Your task to perform on an android device: Toggle the flashlight Image 0: 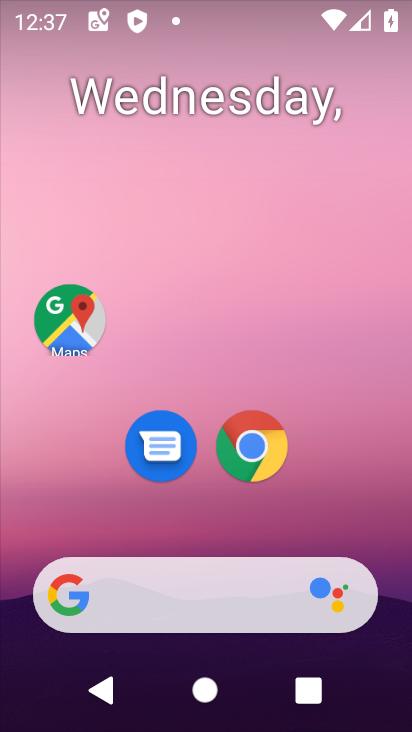
Step 0: drag from (146, 515) to (268, 127)
Your task to perform on an android device: Toggle the flashlight Image 1: 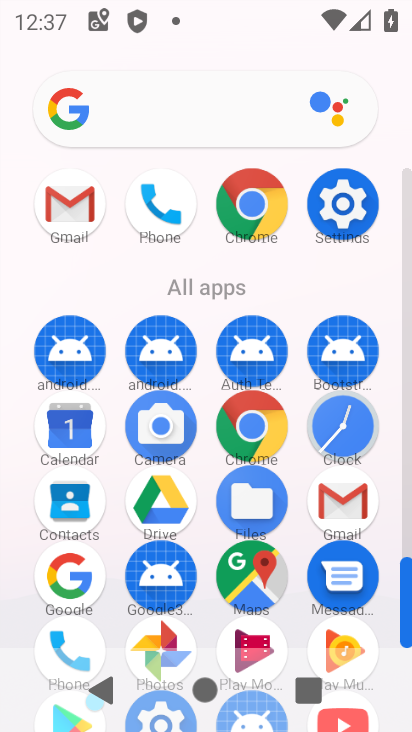
Step 1: drag from (201, 280) to (233, 57)
Your task to perform on an android device: Toggle the flashlight Image 2: 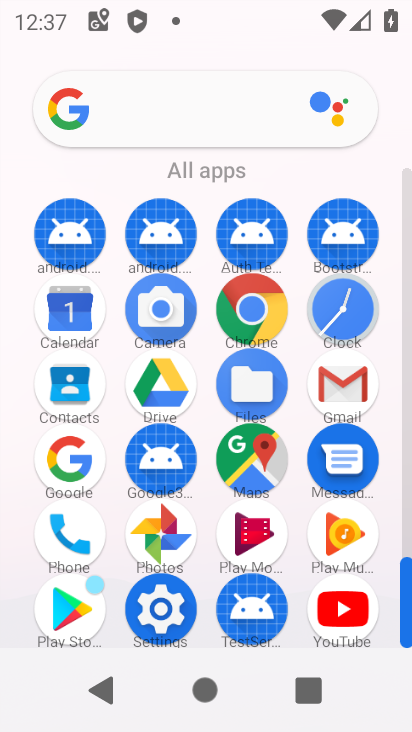
Step 2: click (161, 608)
Your task to perform on an android device: Toggle the flashlight Image 3: 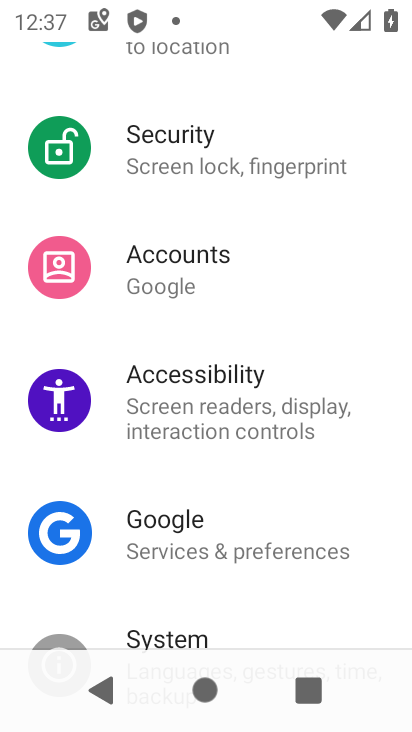
Step 3: task complete